Your task to perform on an android device: toggle priority inbox in the gmail app Image 0: 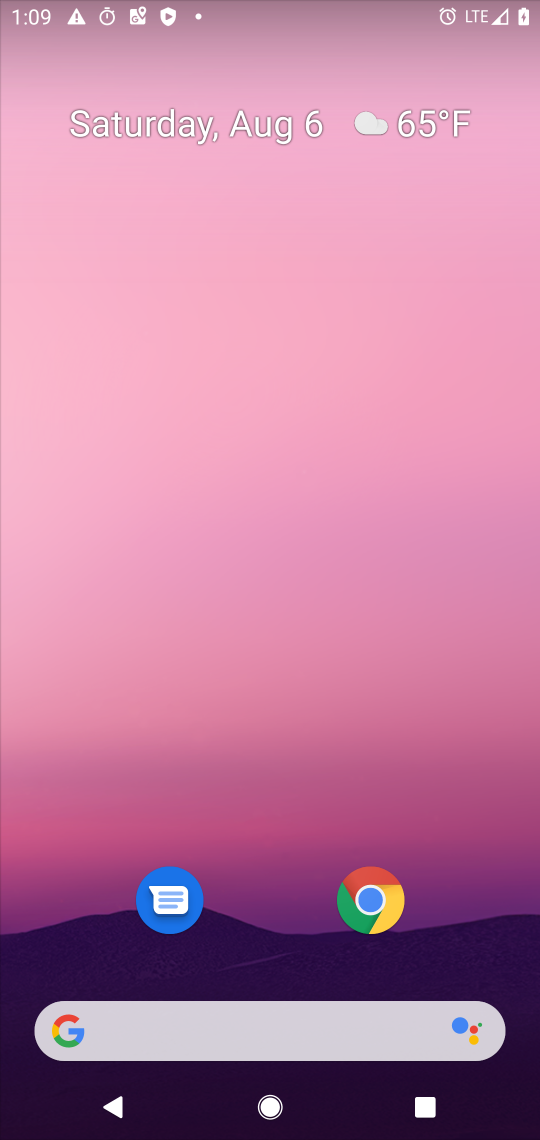
Step 0: drag from (278, 985) to (296, 179)
Your task to perform on an android device: toggle priority inbox in the gmail app Image 1: 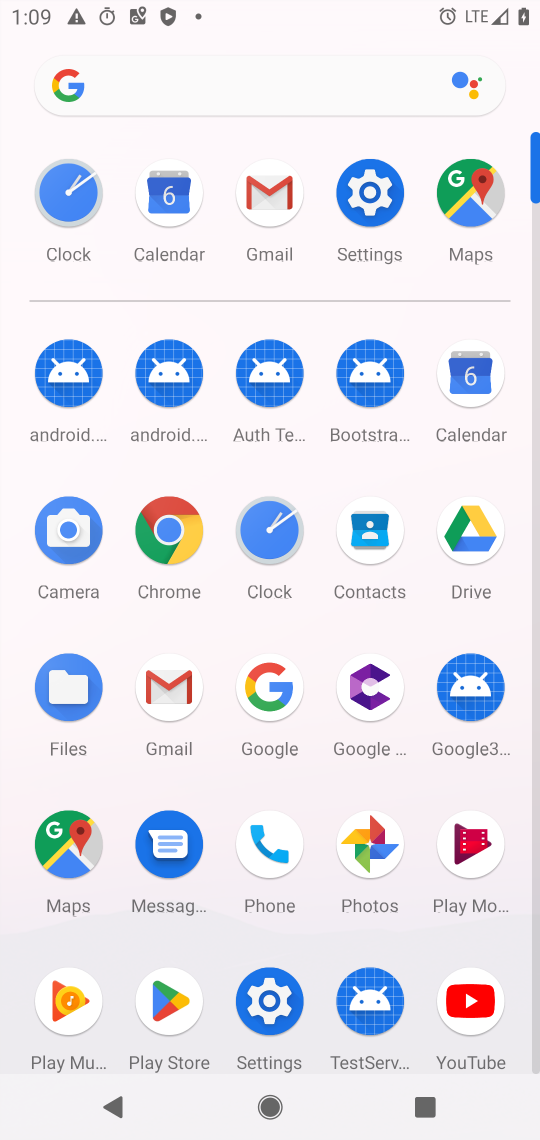
Step 1: click (168, 678)
Your task to perform on an android device: toggle priority inbox in the gmail app Image 2: 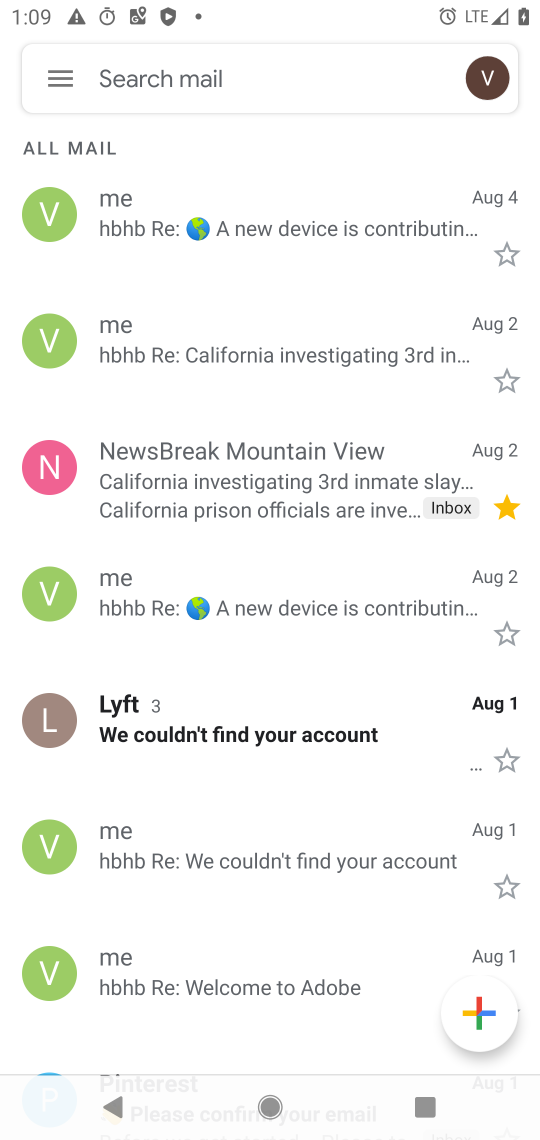
Step 2: click (55, 71)
Your task to perform on an android device: toggle priority inbox in the gmail app Image 3: 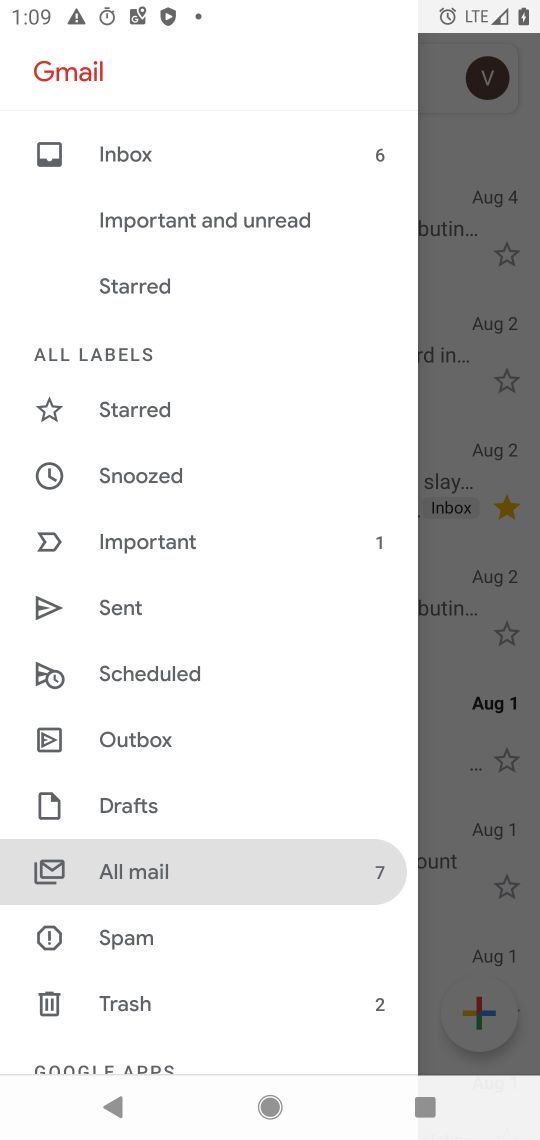
Step 3: drag from (168, 1036) to (146, 578)
Your task to perform on an android device: toggle priority inbox in the gmail app Image 4: 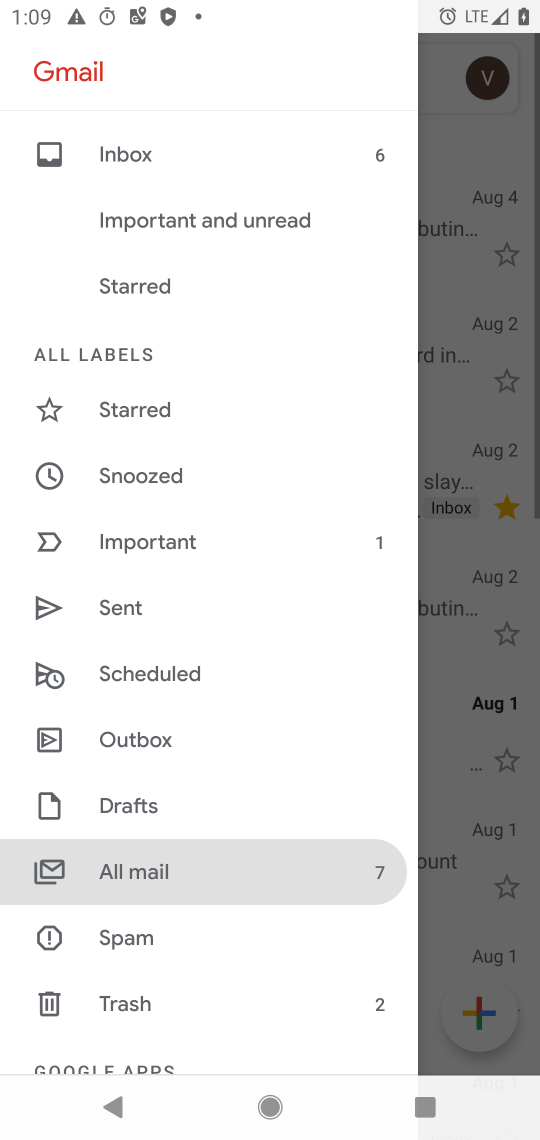
Step 4: drag from (201, 1003) to (232, 430)
Your task to perform on an android device: toggle priority inbox in the gmail app Image 5: 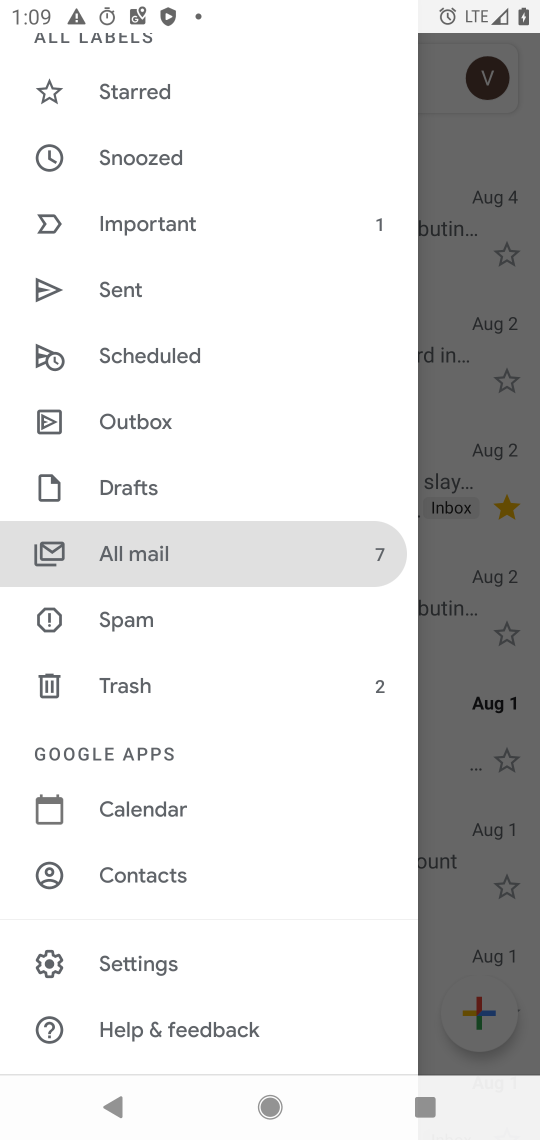
Step 5: drag from (171, 964) to (232, 280)
Your task to perform on an android device: toggle priority inbox in the gmail app Image 6: 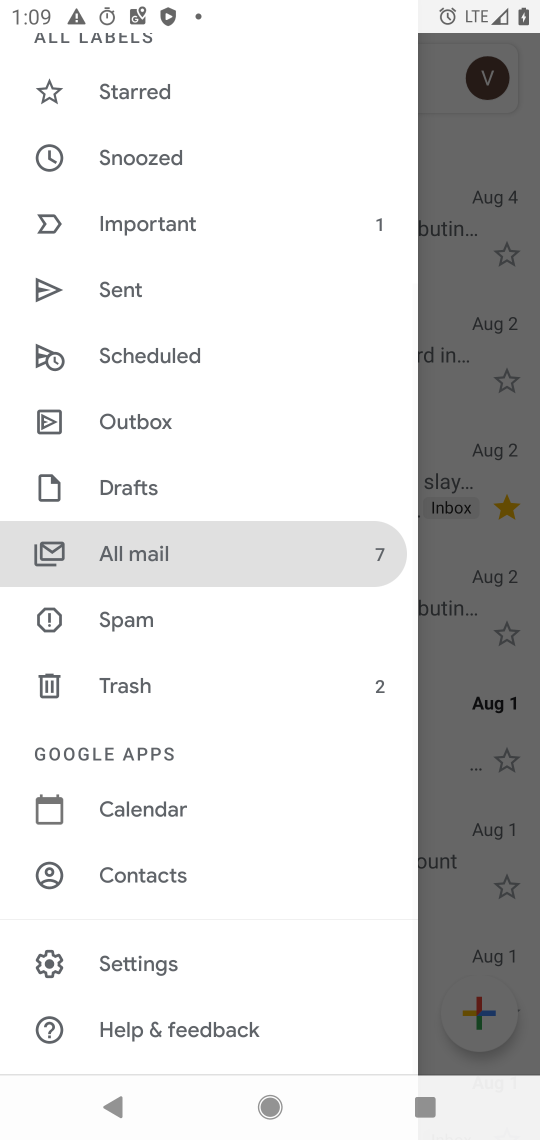
Step 6: click (129, 963)
Your task to perform on an android device: toggle priority inbox in the gmail app Image 7: 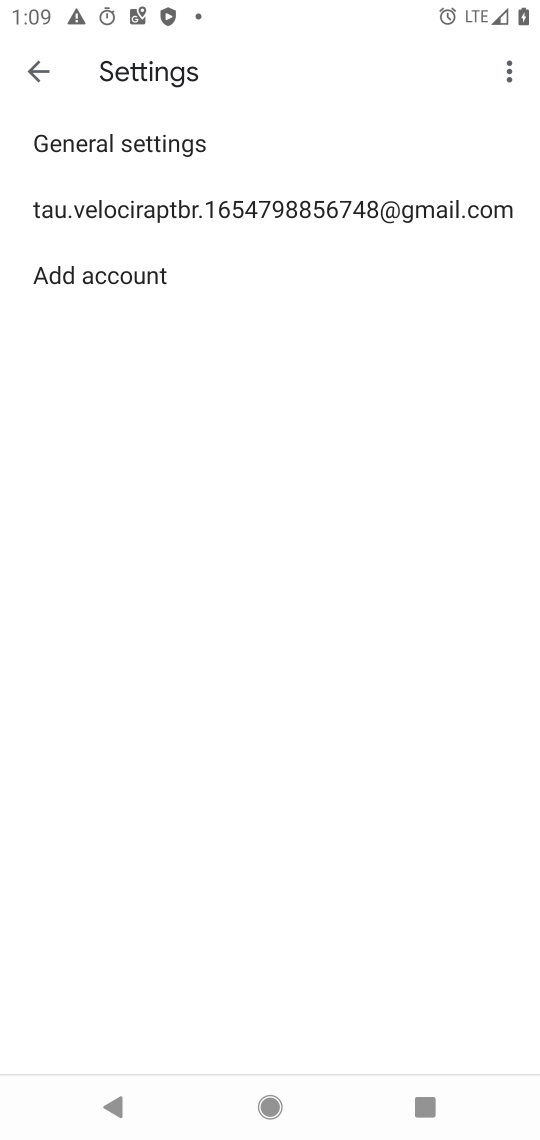
Step 7: click (151, 203)
Your task to perform on an android device: toggle priority inbox in the gmail app Image 8: 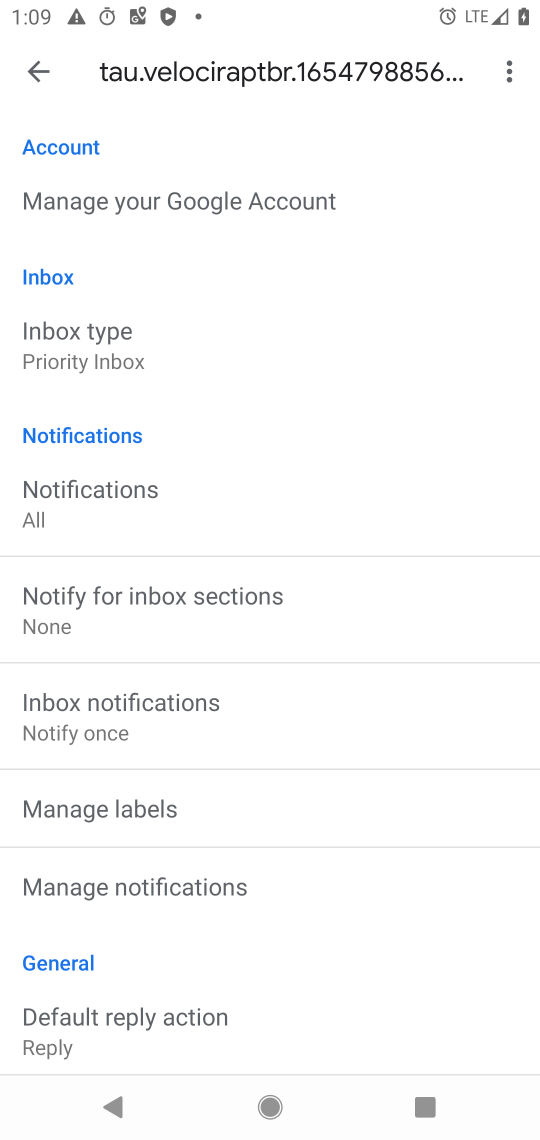
Step 8: click (91, 352)
Your task to perform on an android device: toggle priority inbox in the gmail app Image 9: 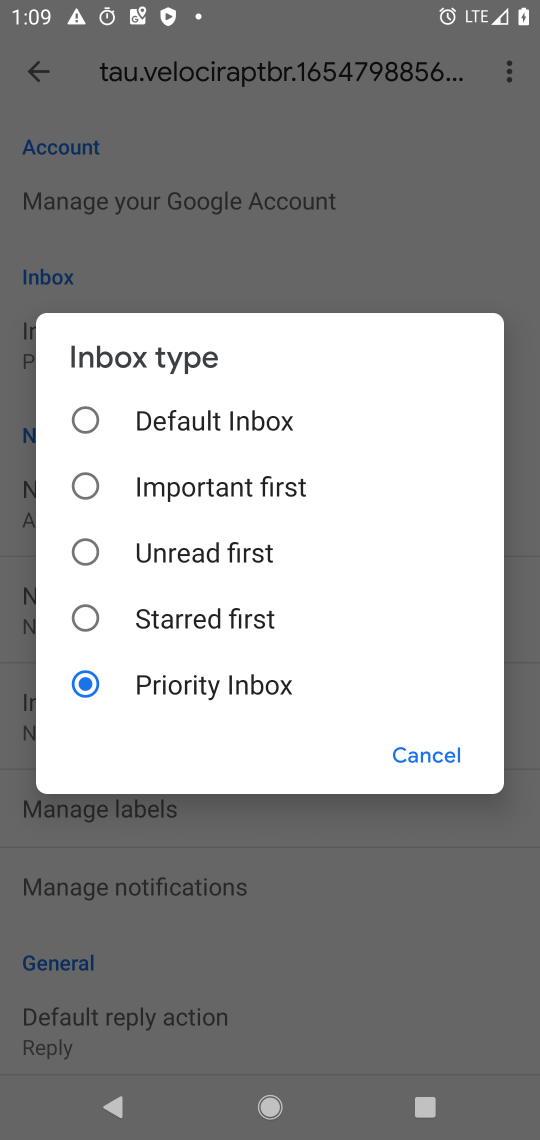
Step 9: click (79, 420)
Your task to perform on an android device: toggle priority inbox in the gmail app Image 10: 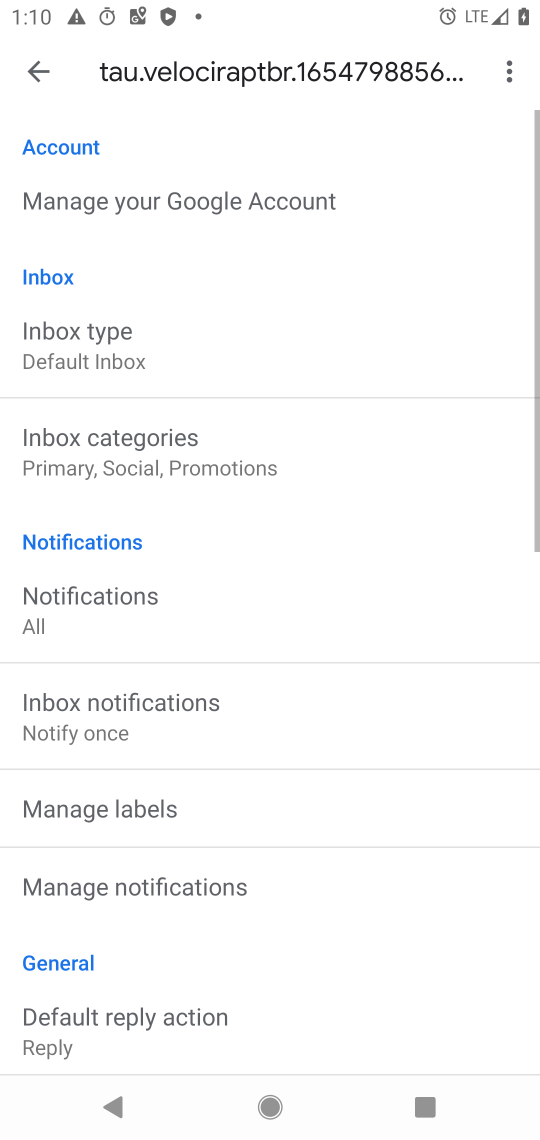
Step 10: task complete